Your task to perform on an android device: check the backup settings in the google photos Image 0: 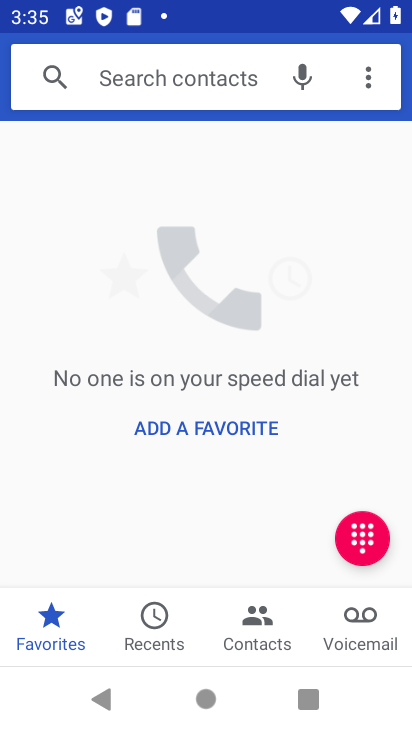
Step 0: task complete